Your task to perform on an android device: turn off improve location accuracy Image 0: 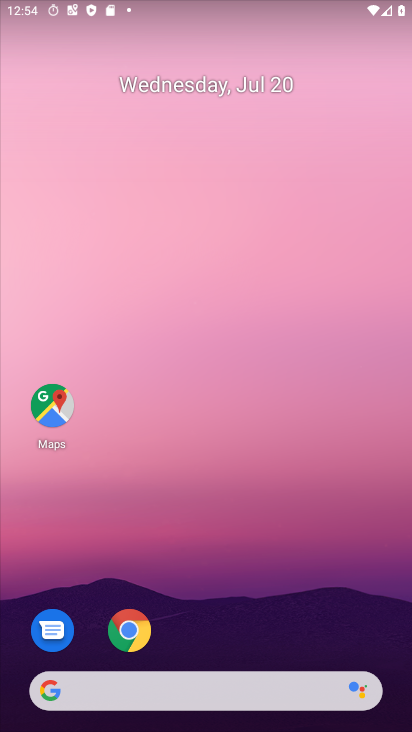
Step 0: drag from (262, 632) to (215, 63)
Your task to perform on an android device: turn off improve location accuracy Image 1: 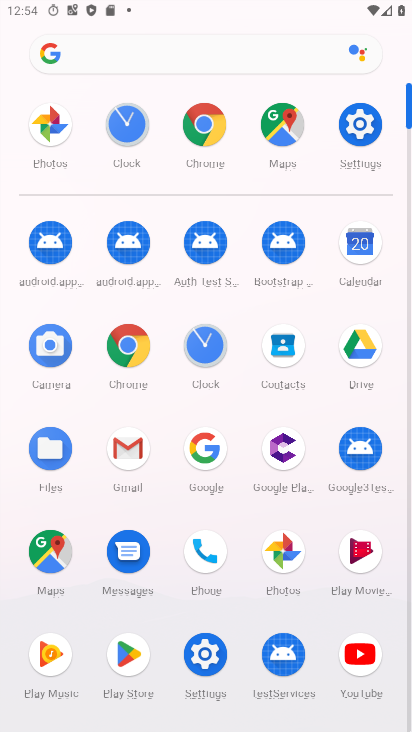
Step 1: click (368, 114)
Your task to perform on an android device: turn off improve location accuracy Image 2: 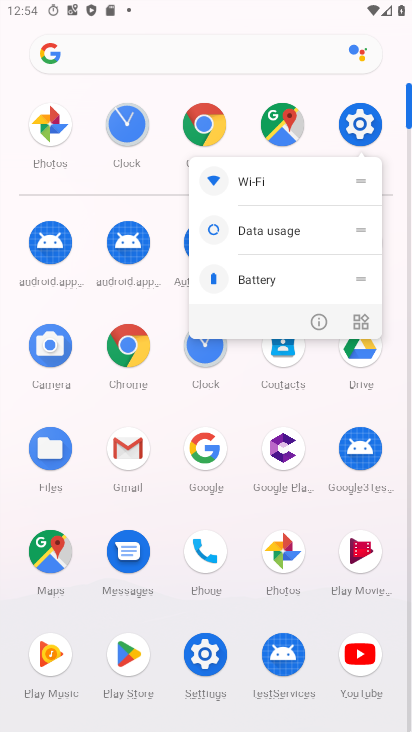
Step 2: click (356, 121)
Your task to perform on an android device: turn off improve location accuracy Image 3: 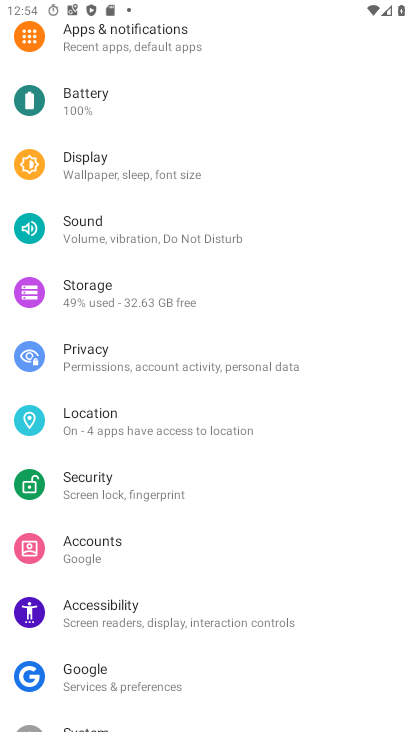
Step 3: click (164, 413)
Your task to perform on an android device: turn off improve location accuracy Image 4: 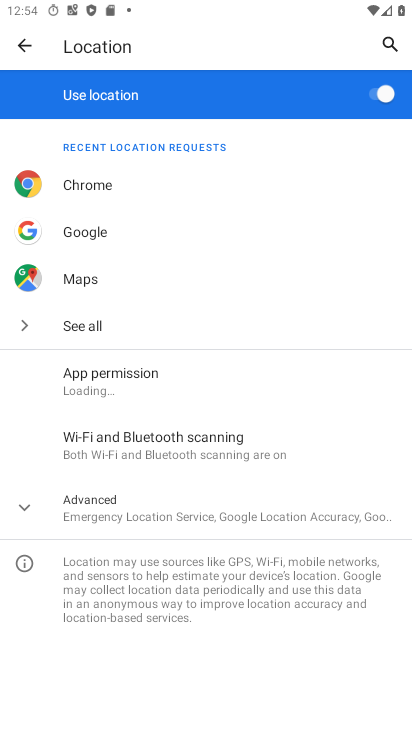
Step 4: click (71, 508)
Your task to perform on an android device: turn off improve location accuracy Image 5: 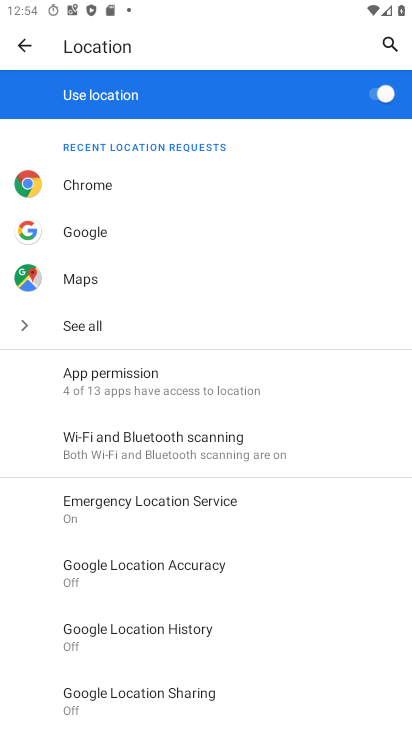
Step 5: click (161, 587)
Your task to perform on an android device: turn off improve location accuracy Image 6: 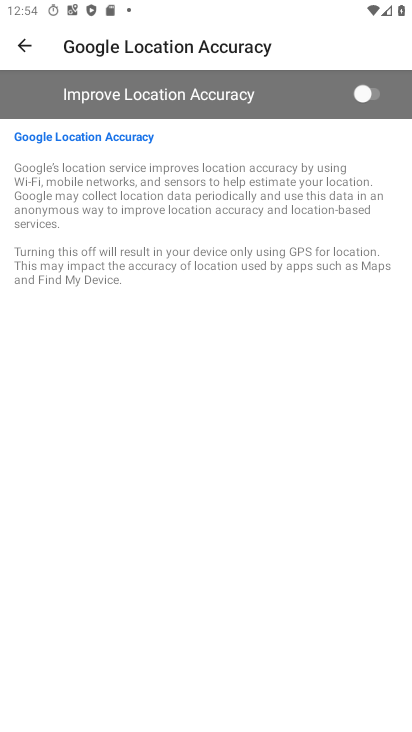
Step 6: task complete